Your task to perform on an android device: Go to Google Image 0: 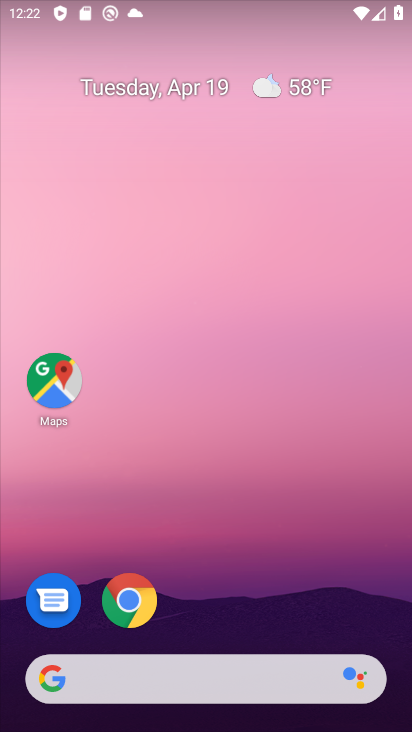
Step 0: click (162, 680)
Your task to perform on an android device: Go to Google Image 1: 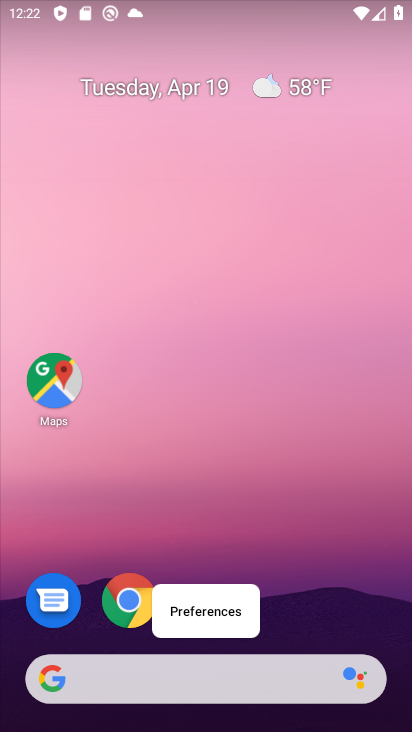
Step 1: click (139, 679)
Your task to perform on an android device: Go to Google Image 2: 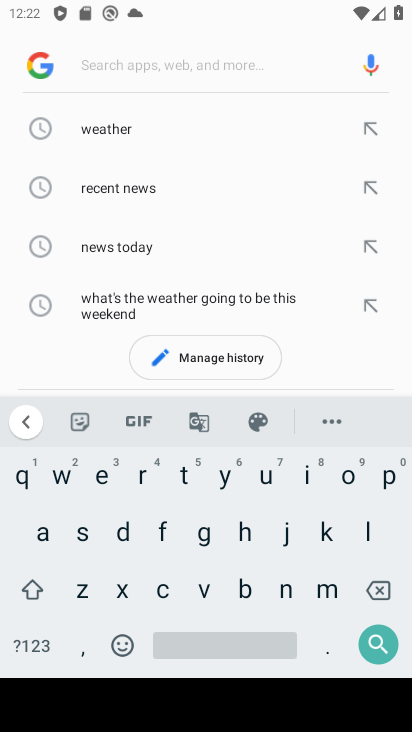
Step 2: click (41, 61)
Your task to perform on an android device: Go to Google Image 3: 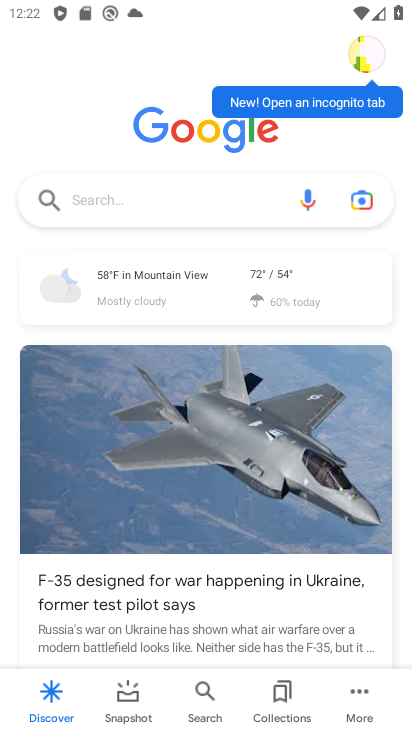
Step 3: click (154, 205)
Your task to perform on an android device: Go to Google Image 4: 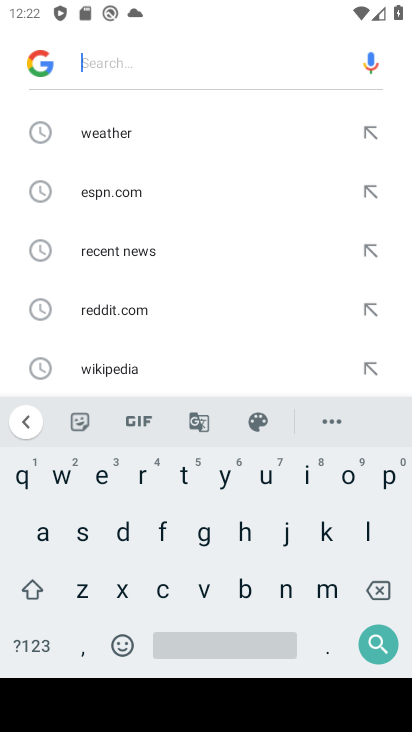
Step 4: task complete